Your task to perform on an android device: set the timer Image 0: 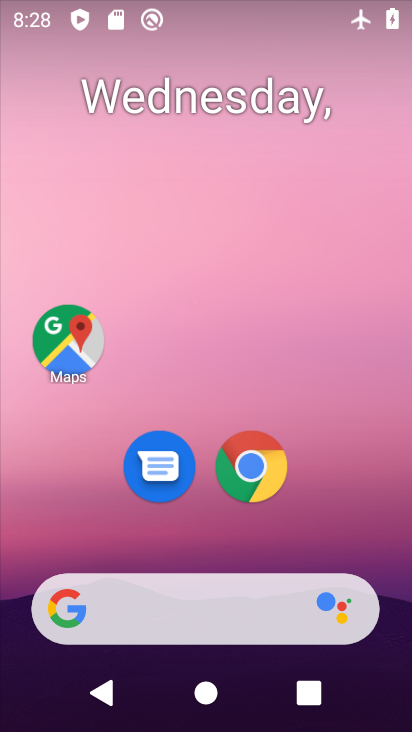
Step 0: drag from (343, 540) to (339, 62)
Your task to perform on an android device: set the timer Image 1: 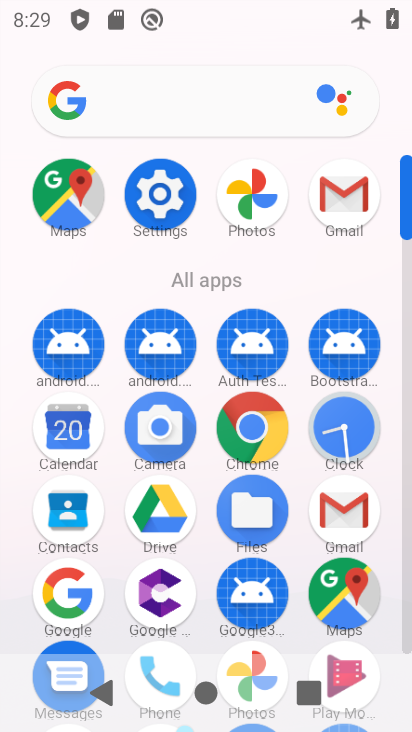
Step 1: click (337, 426)
Your task to perform on an android device: set the timer Image 2: 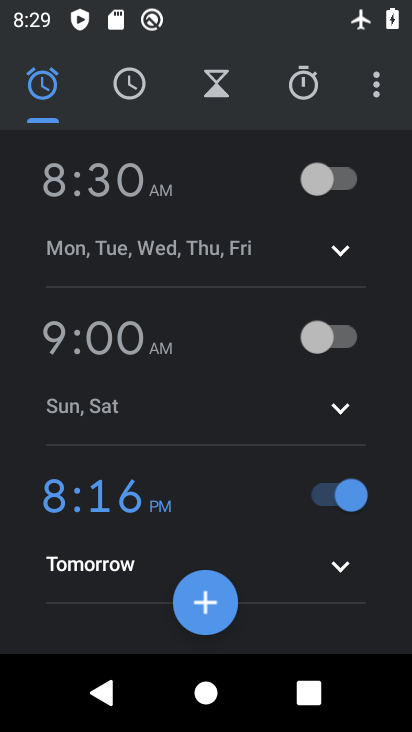
Step 2: click (224, 98)
Your task to perform on an android device: set the timer Image 3: 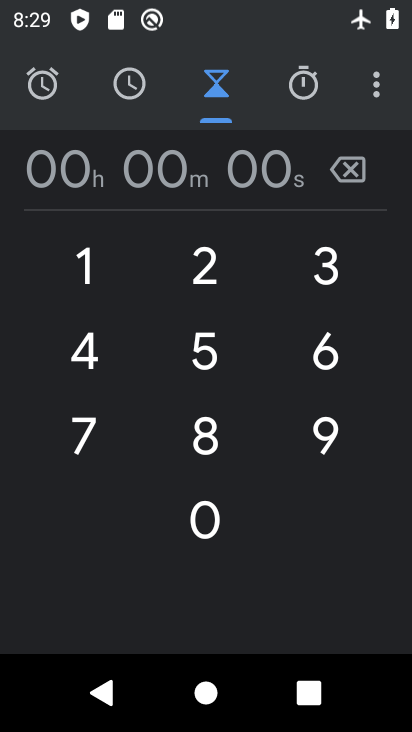
Step 3: click (68, 444)
Your task to perform on an android device: set the timer Image 4: 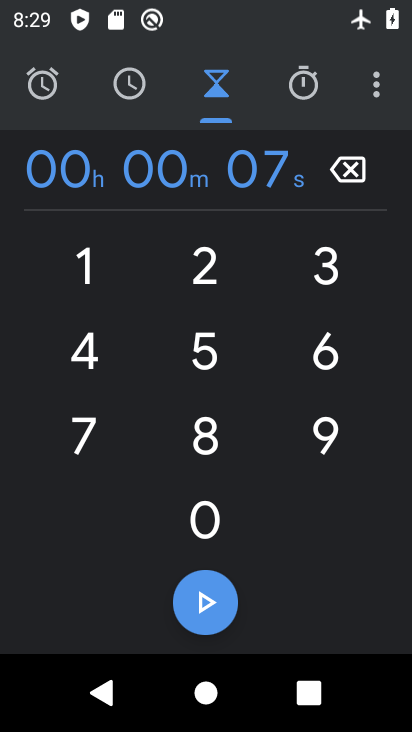
Step 4: click (200, 353)
Your task to perform on an android device: set the timer Image 5: 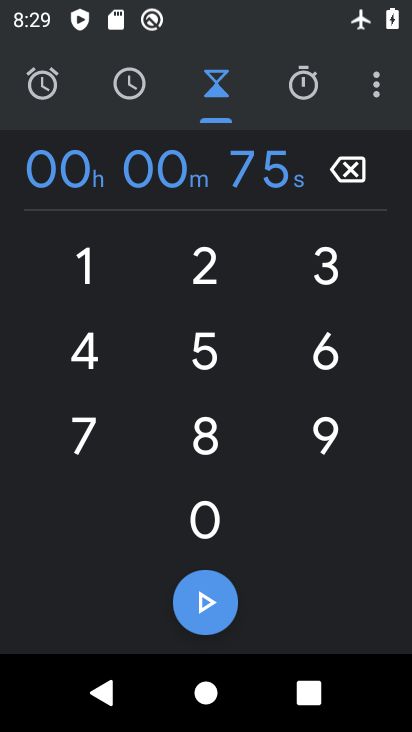
Step 5: click (304, 265)
Your task to perform on an android device: set the timer Image 6: 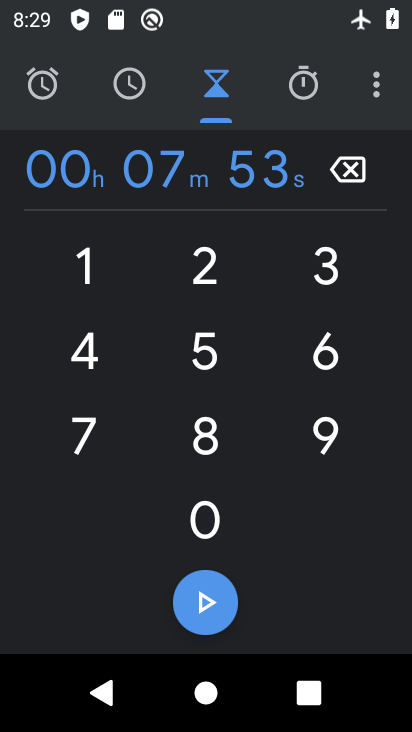
Step 6: click (322, 442)
Your task to perform on an android device: set the timer Image 7: 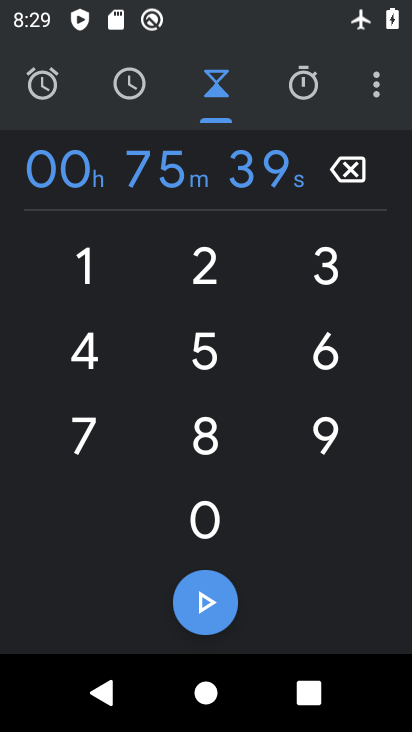
Step 7: click (228, 357)
Your task to perform on an android device: set the timer Image 8: 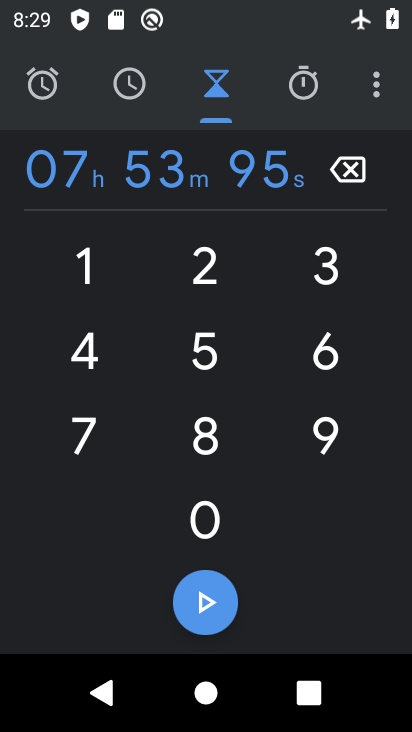
Step 8: click (87, 269)
Your task to perform on an android device: set the timer Image 9: 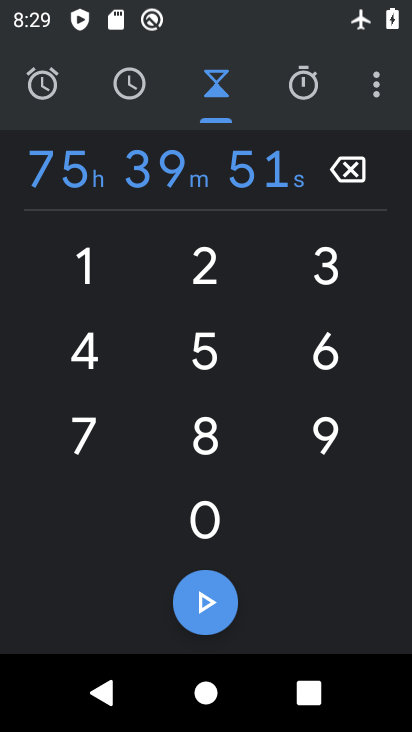
Step 9: click (206, 594)
Your task to perform on an android device: set the timer Image 10: 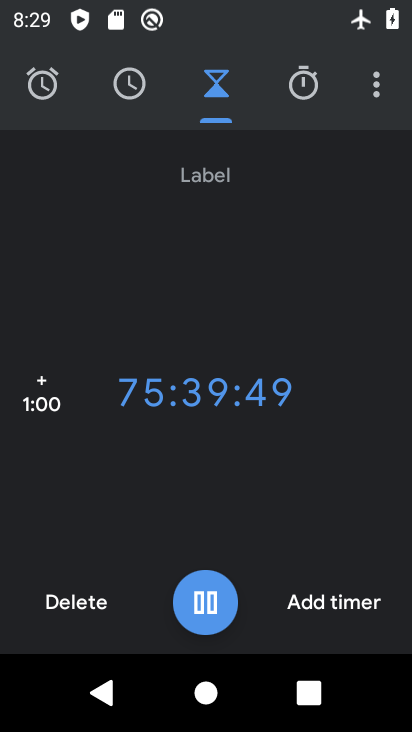
Step 10: task complete